Your task to perform on an android device: make emails show in primary in the gmail app Image 0: 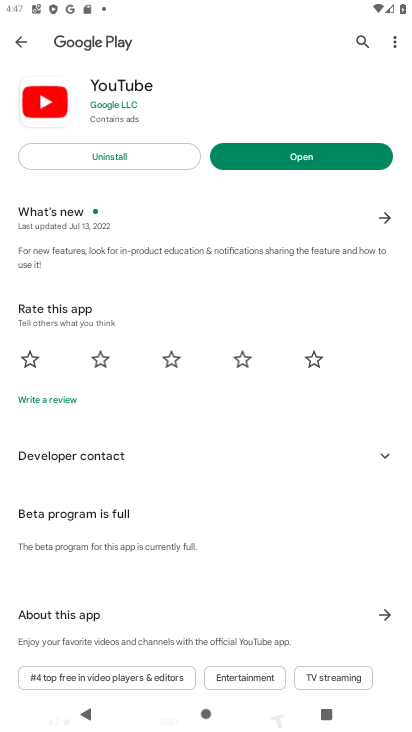
Step 0: press home button
Your task to perform on an android device: make emails show in primary in the gmail app Image 1: 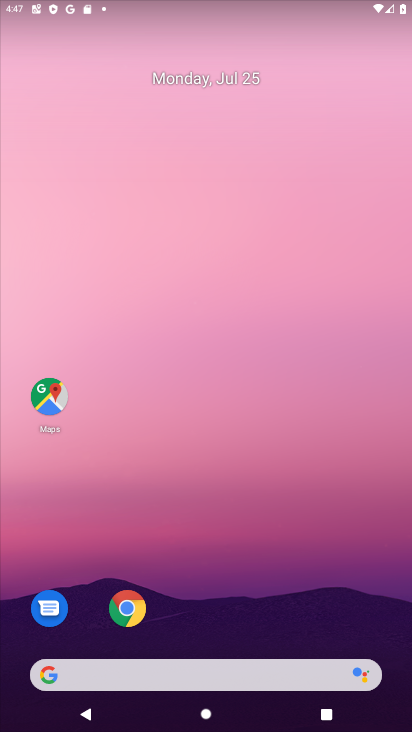
Step 1: drag from (222, 621) to (228, 0)
Your task to perform on an android device: make emails show in primary in the gmail app Image 2: 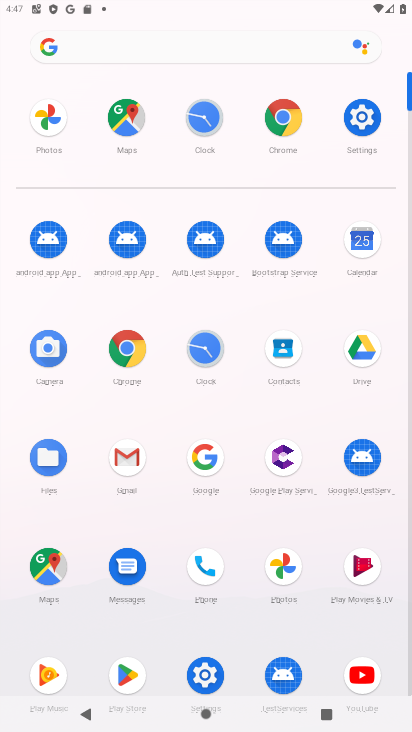
Step 2: click (124, 458)
Your task to perform on an android device: make emails show in primary in the gmail app Image 3: 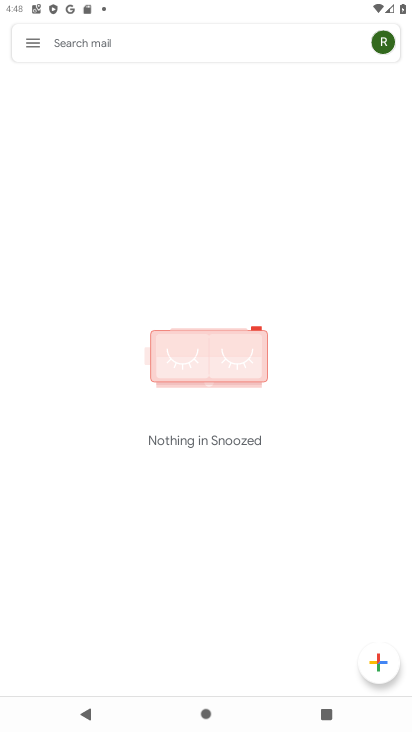
Step 3: click (24, 40)
Your task to perform on an android device: make emails show in primary in the gmail app Image 4: 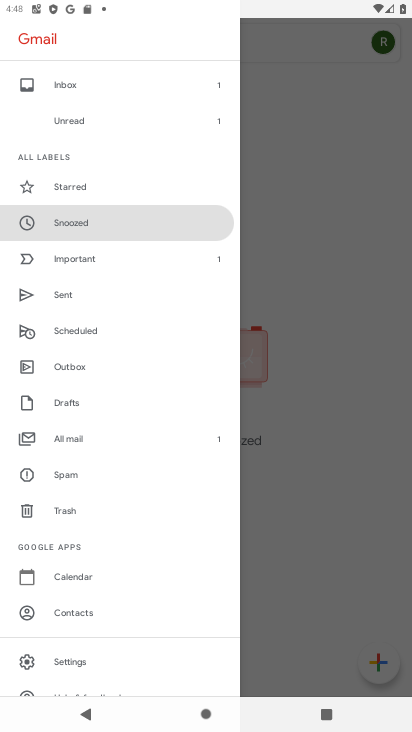
Step 4: click (90, 653)
Your task to perform on an android device: make emails show in primary in the gmail app Image 5: 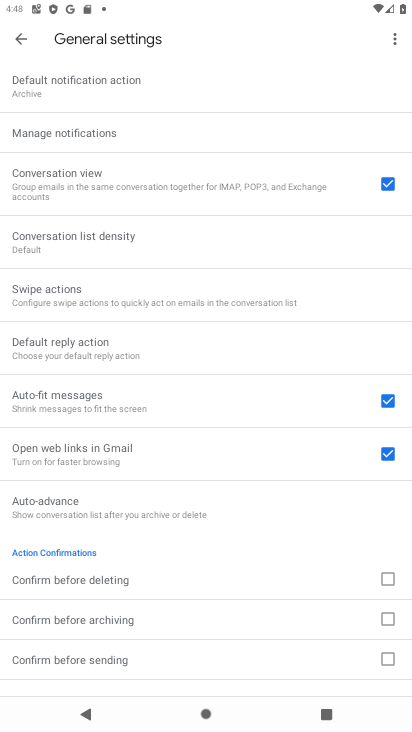
Step 5: click (9, 30)
Your task to perform on an android device: make emails show in primary in the gmail app Image 6: 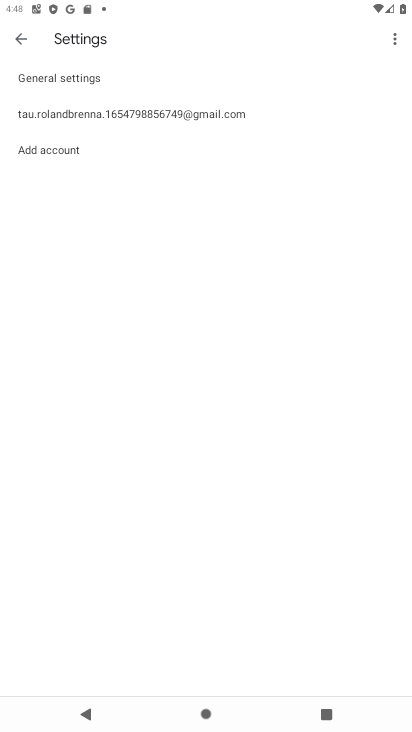
Step 6: click (113, 113)
Your task to perform on an android device: make emails show in primary in the gmail app Image 7: 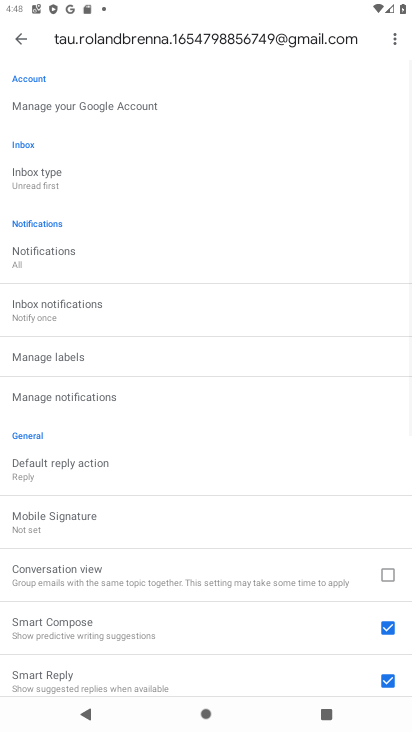
Step 7: click (75, 179)
Your task to perform on an android device: make emails show in primary in the gmail app Image 8: 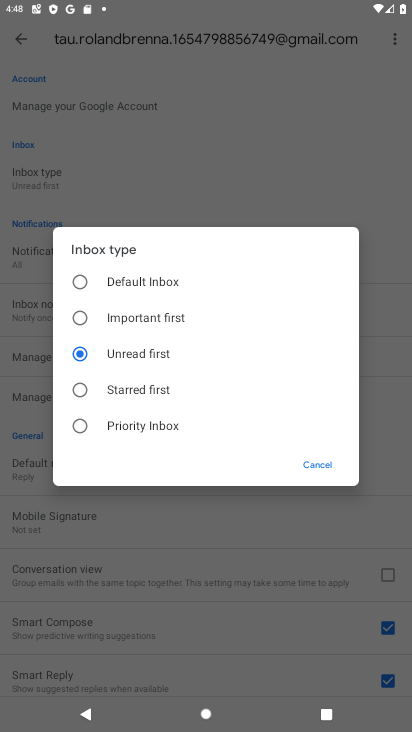
Step 8: click (83, 285)
Your task to perform on an android device: make emails show in primary in the gmail app Image 9: 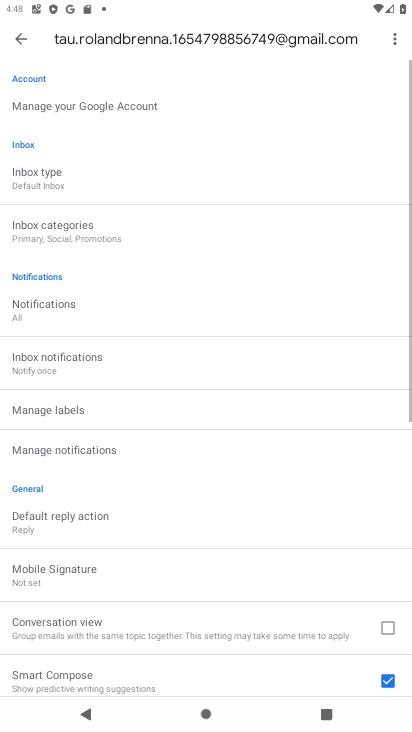
Step 9: task complete